Your task to perform on an android device: What's the weather? Image 0: 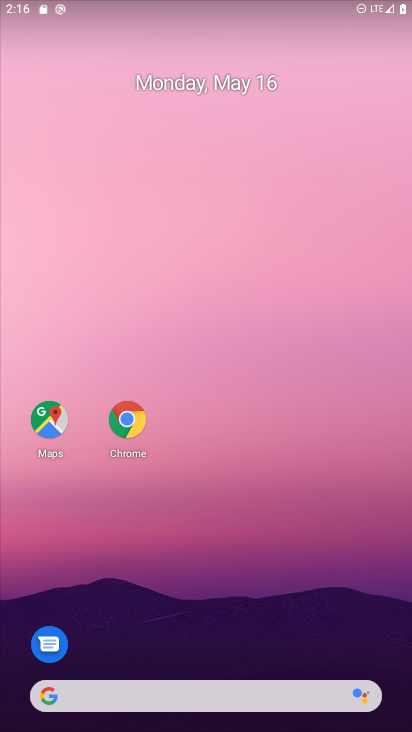
Step 0: drag from (201, 574) to (125, 15)
Your task to perform on an android device: What's the weather? Image 1: 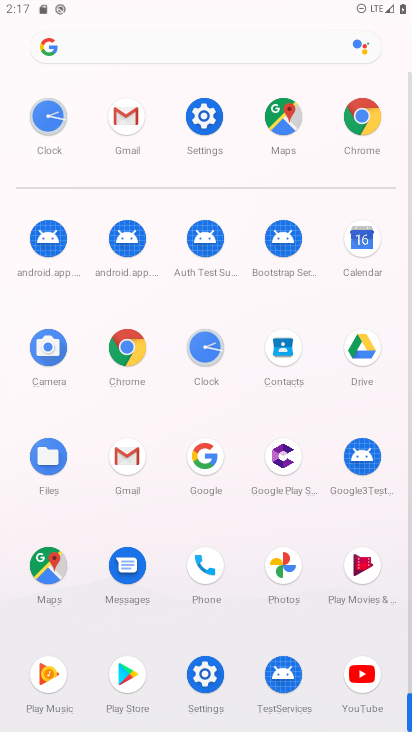
Step 1: click (103, 50)
Your task to perform on an android device: What's the weather? Image 2: 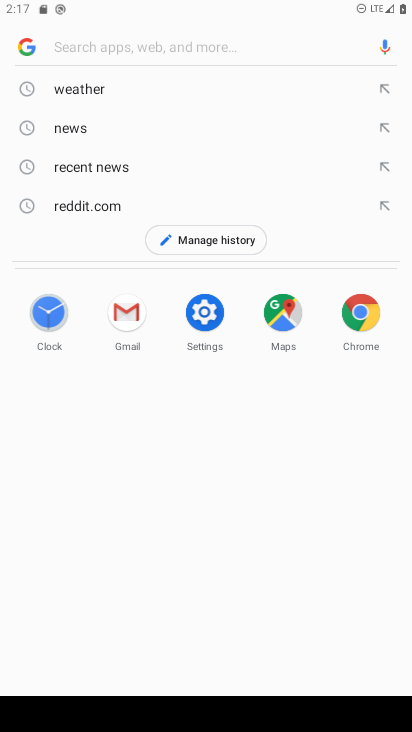
Step 2: click (86, 94)
Your task to perform on an android device: What's the weather? Image 3: 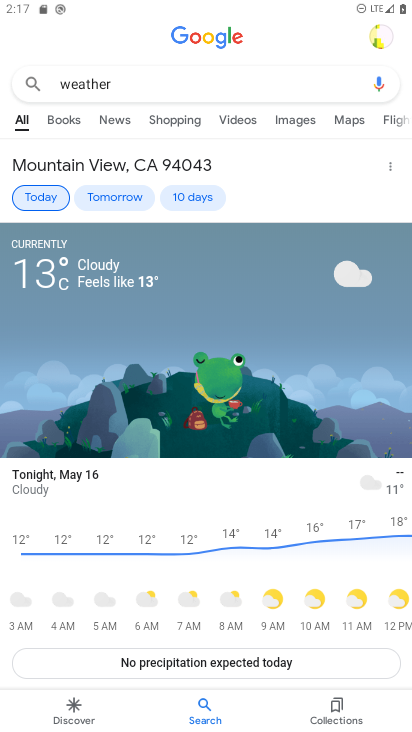
Step 3: task complete